Your task to perform on an android device: Do I have any events tomorrow? Image 0: 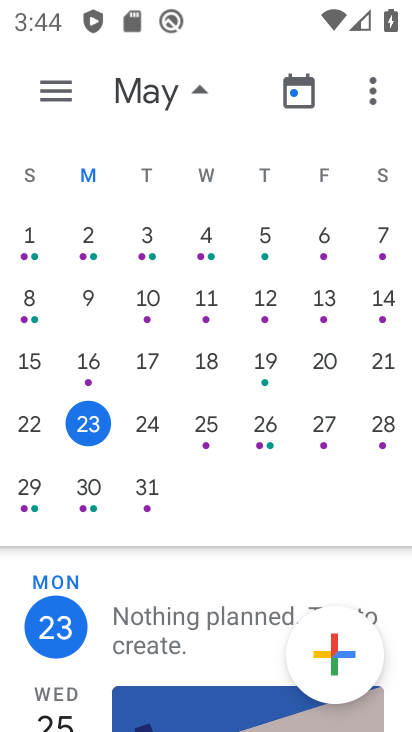
Step 0: press home button
Your task to perform on an android device: Do I have any events tomorrow? Image 1: 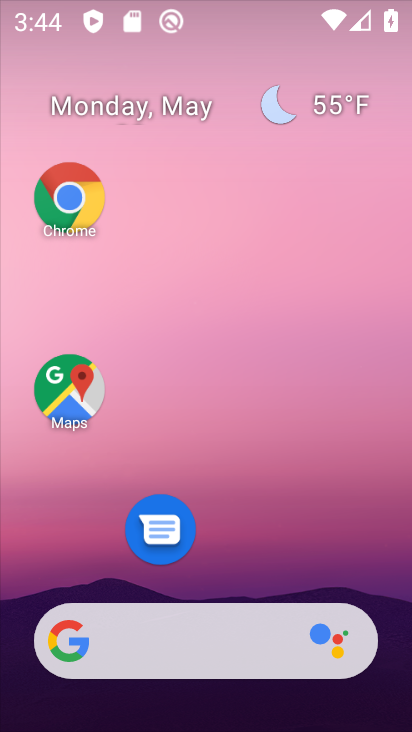
Step 1: drag from (213, 624) to (294, 145)
Your task to perform on an android device: Do I have any events tomorrow? Image 2: 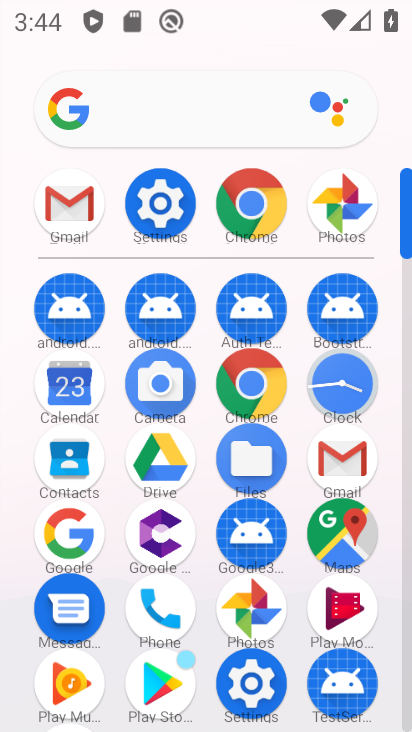
Step 2: click (89, 389)
Your task to perform on an android device: Do I have any events tomorrow? Image 3: 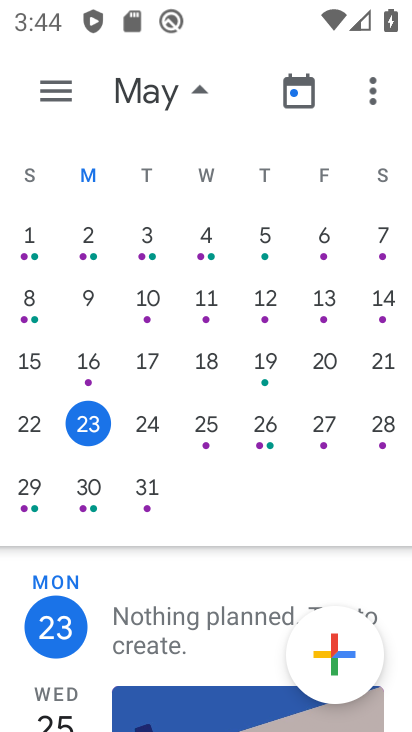
Step 3: click (146, 433)
Your task to perform on an android device: Do I have any events tomorrow? Image 4: 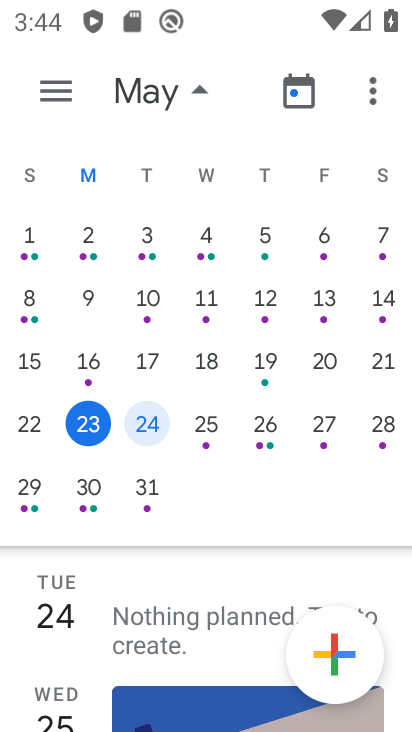
Step 4: task complete